Your task to perform on an android device: Open Chrome and go to settings Image 0: 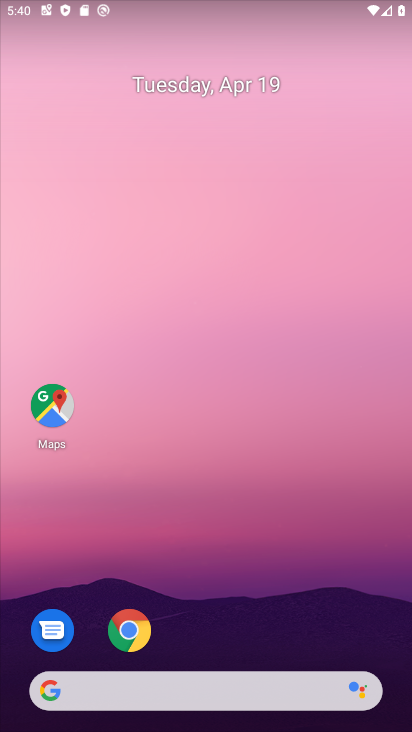
Step 0: drag from (269, 623) to (240, 8)
Your task to perform on an android device: Open Chrome and go to settings Image 1: 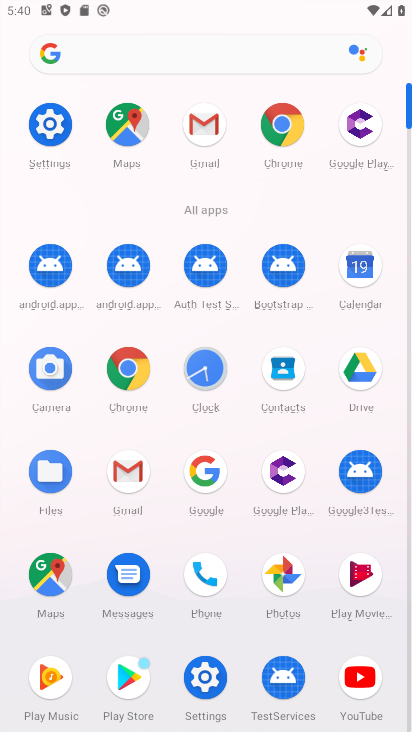
Step 1: click (292, 132)
Your task to perform on an android device: Open Chrome and go to settings Image 2: 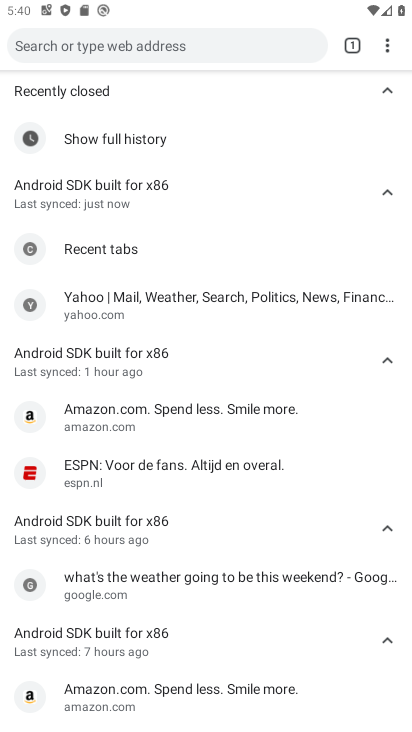
Step 2: task complete